Your task to perform on an android device: toggle sleep mode Image 0: 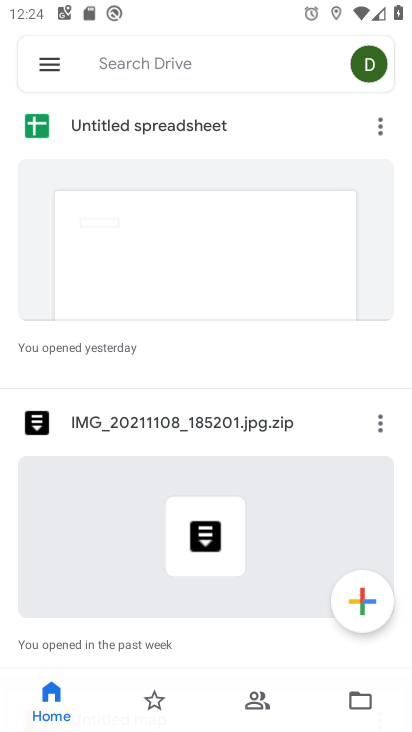
Step 0: press home button
Your task to perform on an android device: toggle sleep mode Image 1: 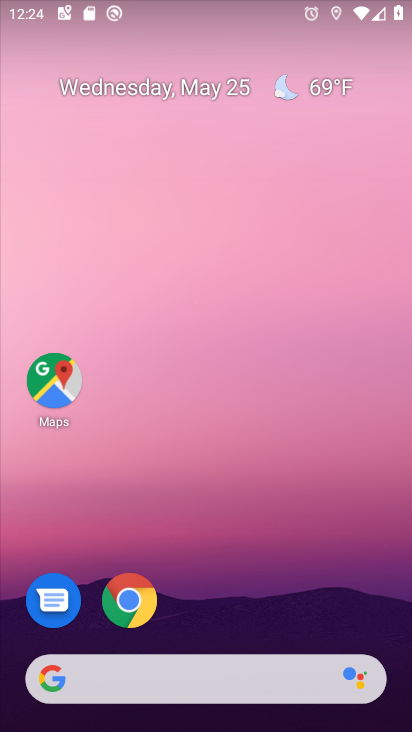
Step 1: drag from (381, 618) to (377, 219)
Your task to perform on an android device: toggle sleep mode Image 2: 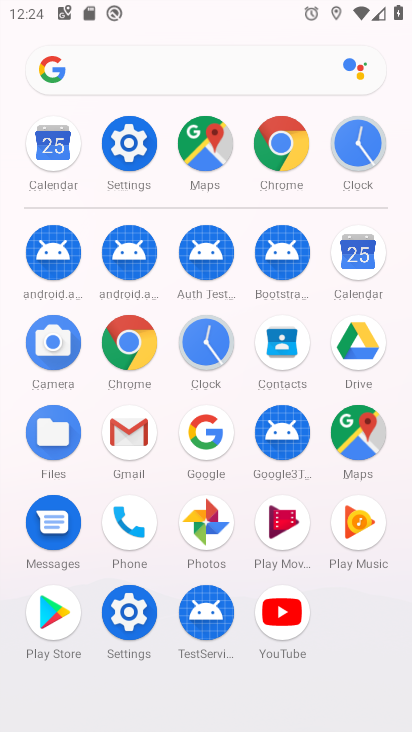
Step 2: click (141, 612)
Your task to perform on an android device: toggle sleep mode Image 3: 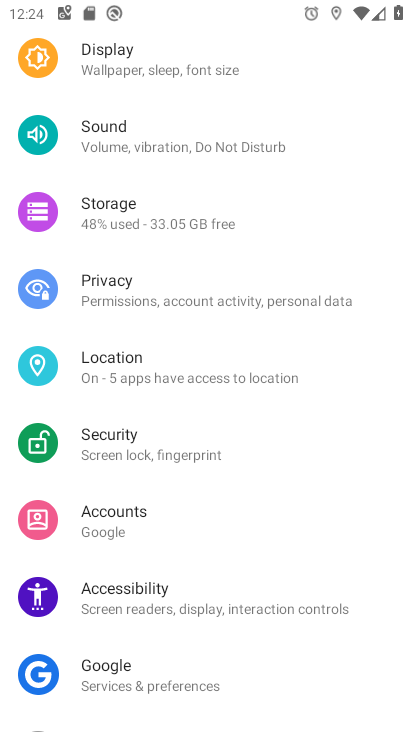
Step 3: drag from (374, 233) to (377, 311)
Your task to perform on an android device: toggle sleep mode Image 4: 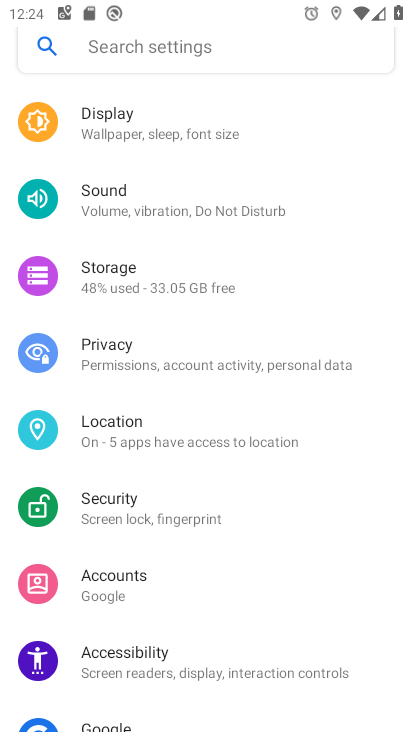
Step 4: drag from (373, 221) to (364, 339)
Your task to perform on an android device: toggle sleep mode Image 5: 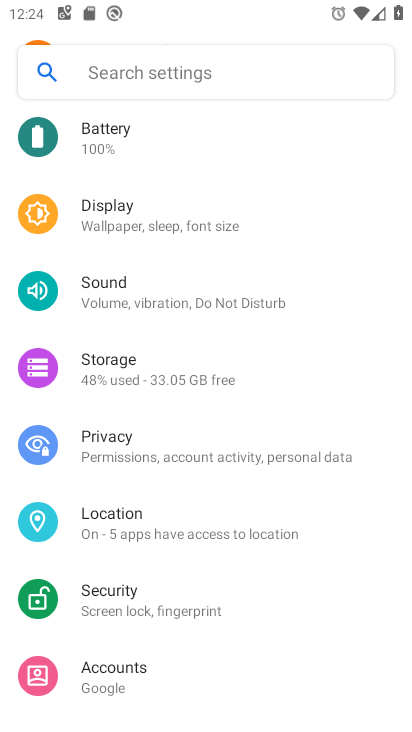
Step 5: drag from (361, 265) to (366, 348)
Your task to perform on an android device: toggle sleep mode Image 6: 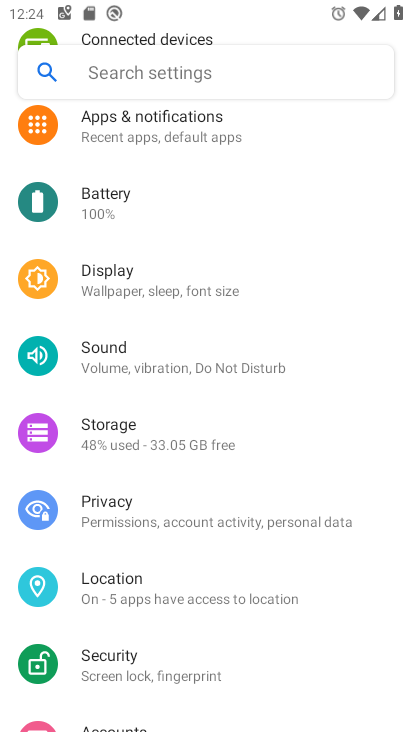
Step 6: drag from (367, 260) to (369, 347)
Your task to perform on an android device: toggle sleep mode Image 7: 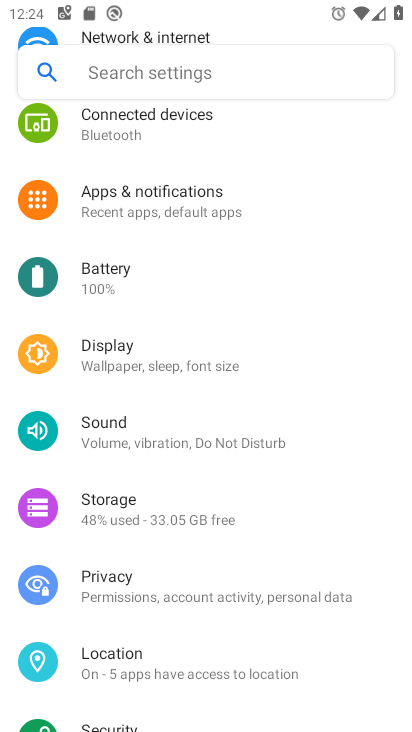
Step 7: drag from (353, 247) to (353, 339)
Your task to perform on an android device: toggle sleep mode Image 8: 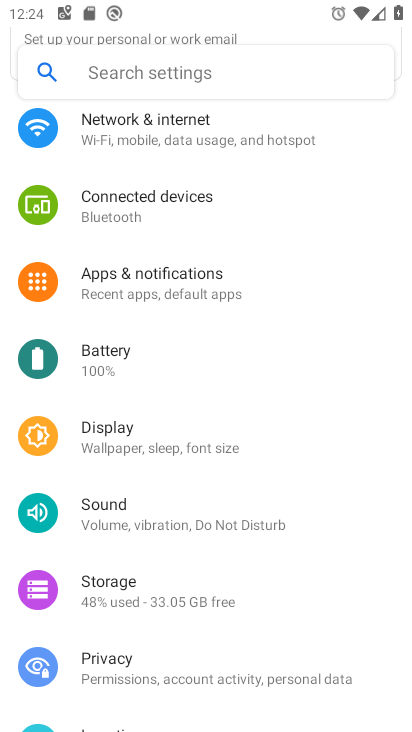
Step 8: drag from (350, 261) to (353, 339)
Your task to perform on an android device: toggle sleep mode Image 9: 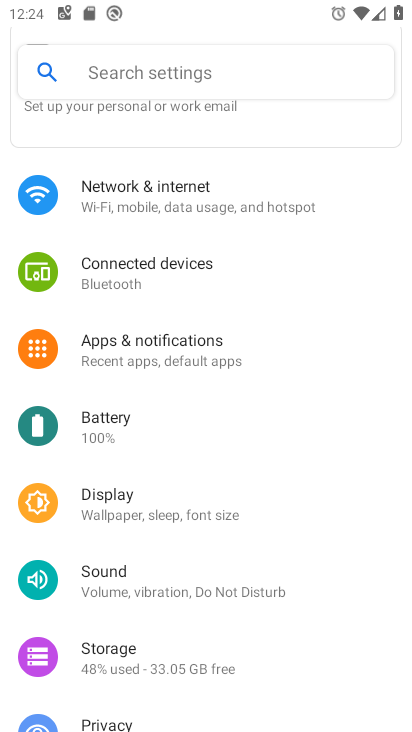
Step 9: drag from (359, 257) to (363, 337)
Your task to perform on an android device: toggle sleep mode Image 10: 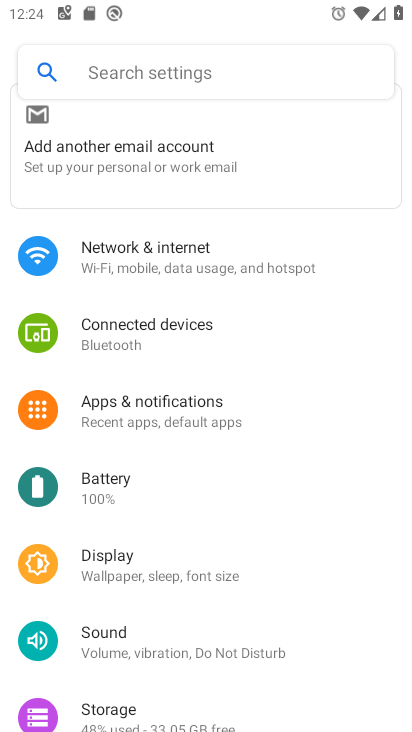
Step 10: drag from (348, 256) to (356, 326)
Your task to perform on an android device: toggle sleep mode Image 11: 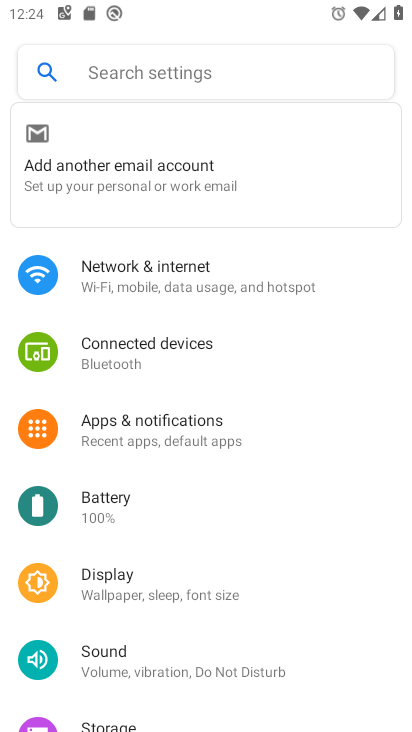
Step 11: drag from (348, 231) to (358, 329)
Your task to perform on an android device: toggle sleep mode Image 12: 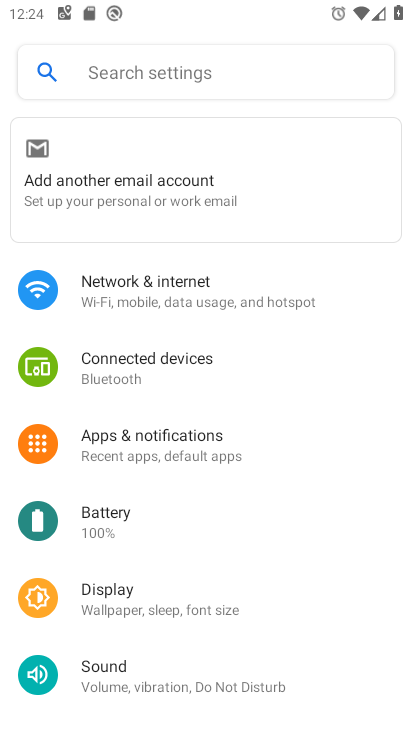
Step 12: drag from (333, 209) to (330, 356)
Your task to perform on an android device: toggle sleep mode Image 13: 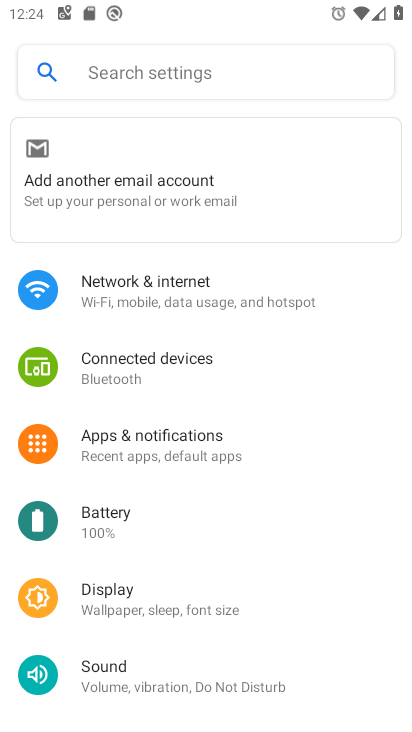
Step 13: drag from (303, 493) to (311, 390)
Your task to perform on an android device: toggle sleep mode Image 14: 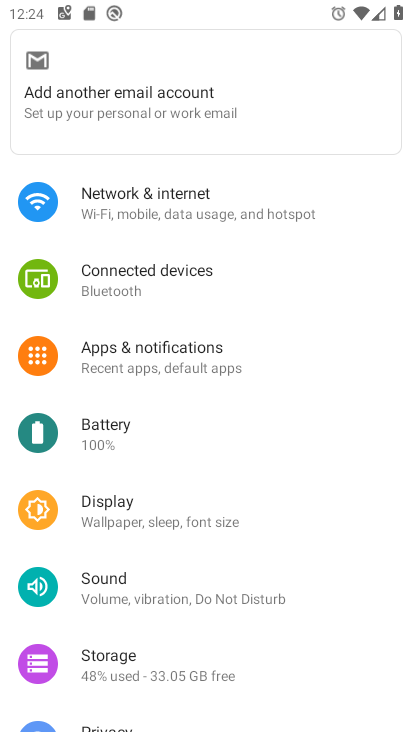
Step 14: drag from (329, 498) to (346, 427)
Your task to perform on an android device: toggle sleep mode Image 15: 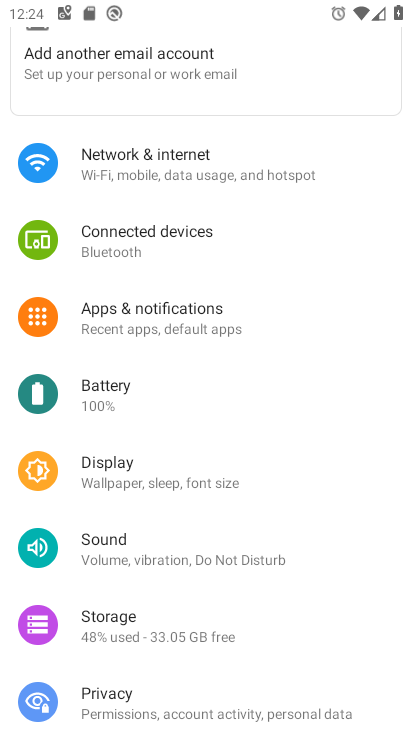
Step 15: drag from (363, 532) to (353, 456)
Your task to perform on an android device: toggle sleep mode Image 16: 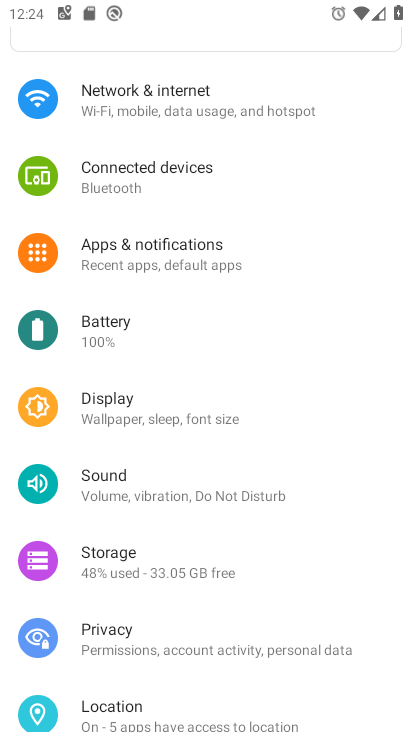
Step 16: click (250, 418)
Your task to perform on an android device: toggle sleep mode Image 17: 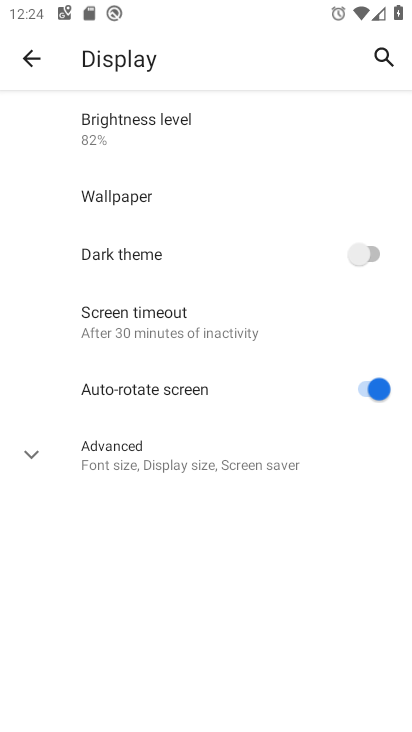
Step 17: click (248, 461)
Your task to perform on an android device: toggle sleep mode Image 18: 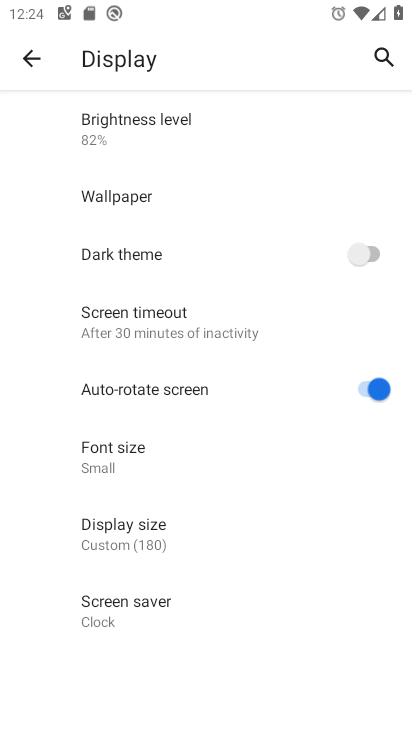
Step 18: task complete